Your task to perform on an android device: turn on priority inbox in the gmail app Image 0: 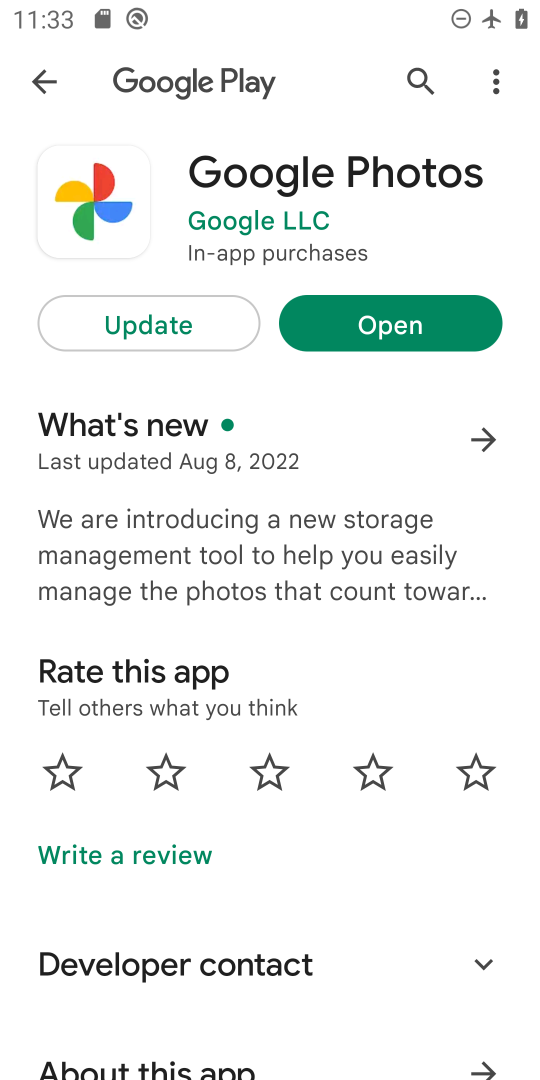
Step 0: press home button
Your task to perform on an android device: turn on priority inbox in the gmail app Image 1: 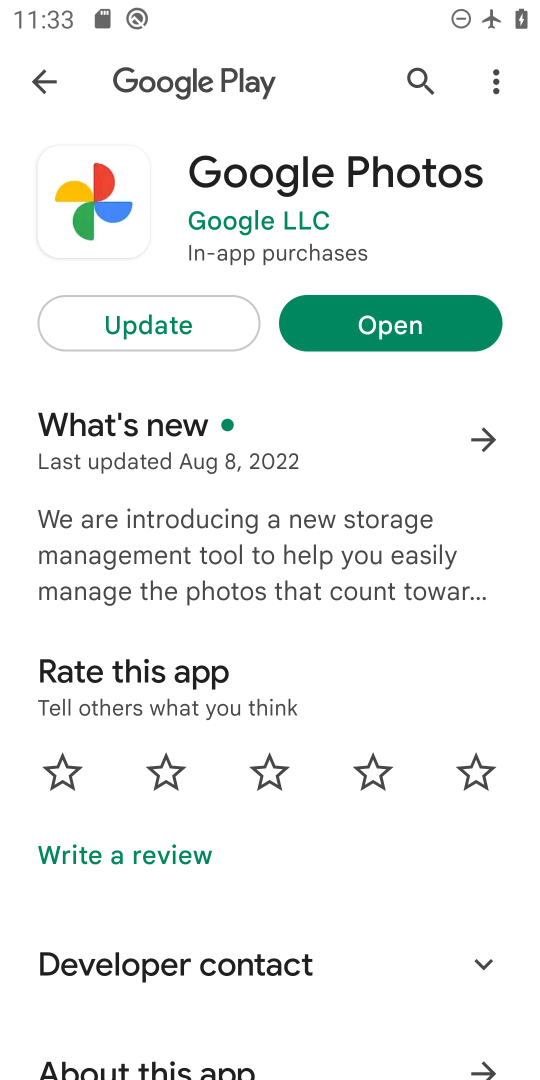
Step 1: press home button
Your task to perform on an android device: turn on priority inbox in the gmail app Image 2: 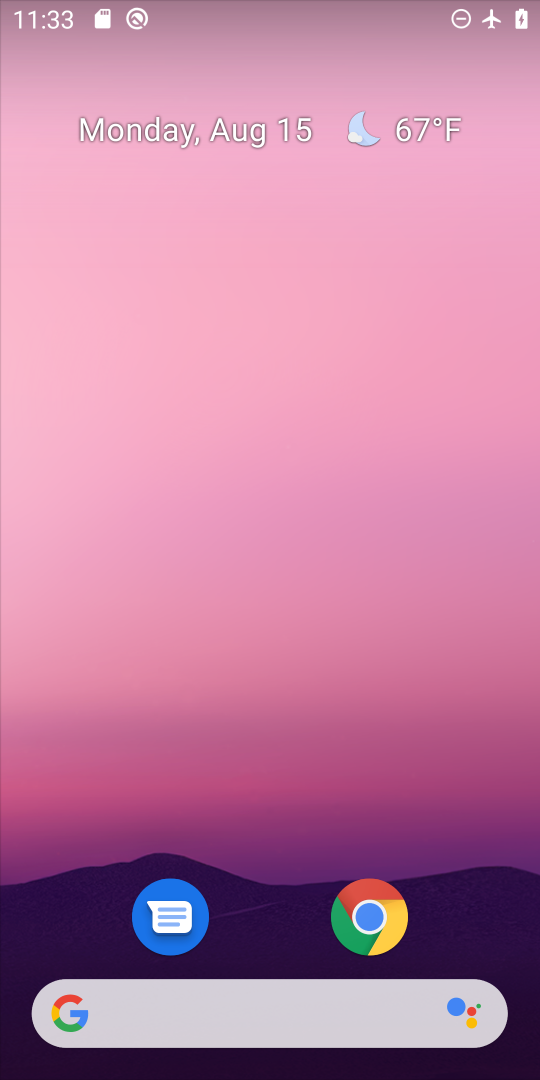
Step 2: drag from (283, 800) to (322, 0)
Your task to perform on an android device: turn on priority inbox in the gmail app Image 3: 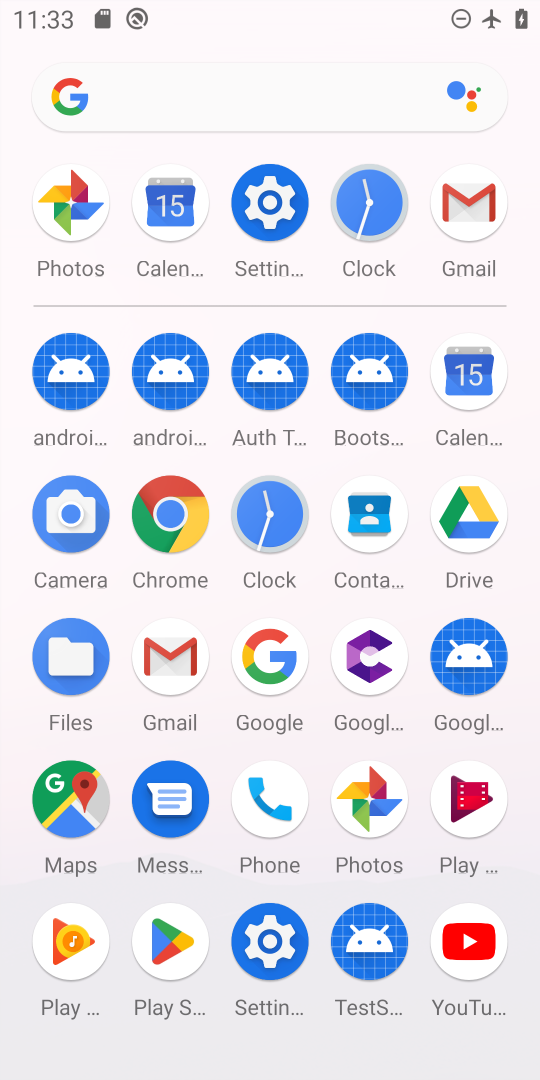
Step 3: click (475, 196)
Your task to perform on an android device: turn on priority inbox in the gmail app Image 4: 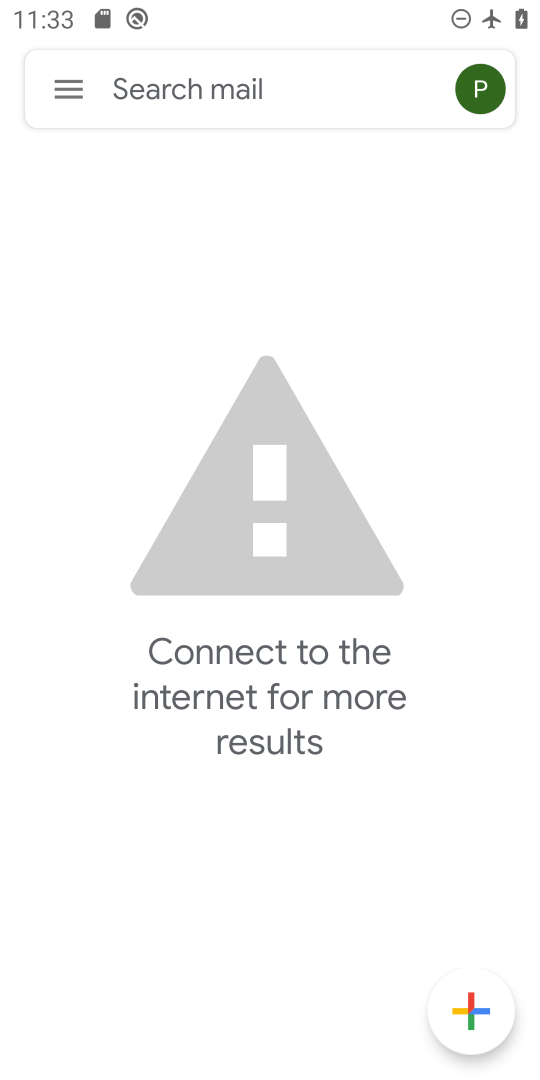
Step 4: click (77, 85)
Your task to perform on an android device: turn on priority inbox in the gmail app Image 5: 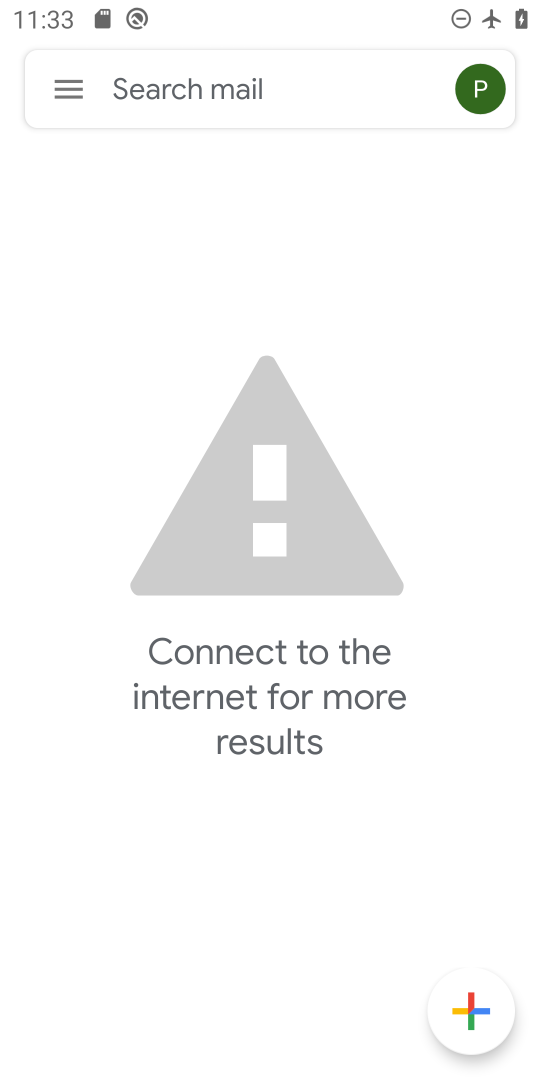
Step 5: click (77, 85)
Your task to perform on an android device: turn on priority inbox in the gmail app Image 6: 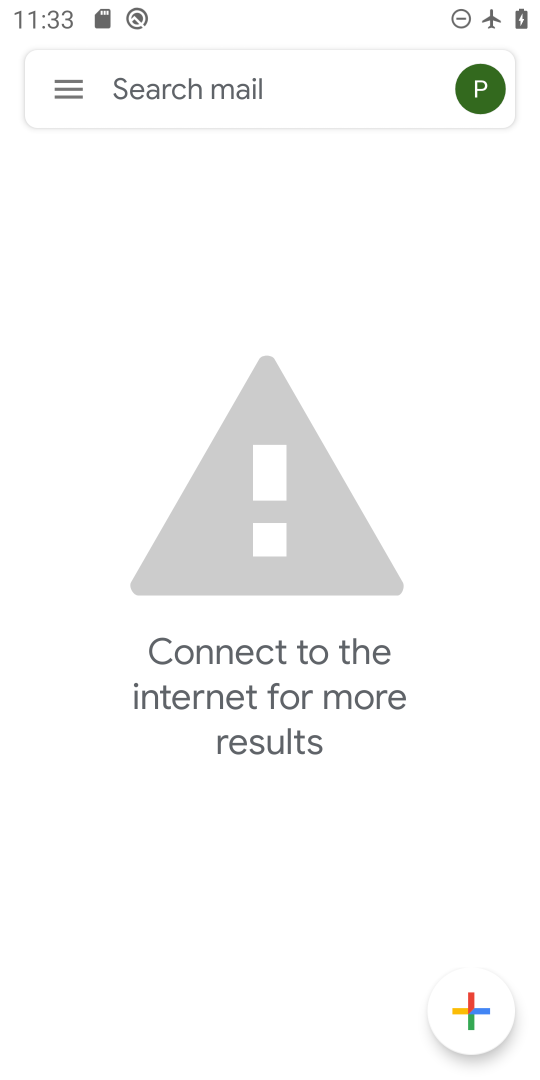
Step 6: click (72, 91)
Your task to perform on an android device: turn on priority inbox in the gmail app Image 7: 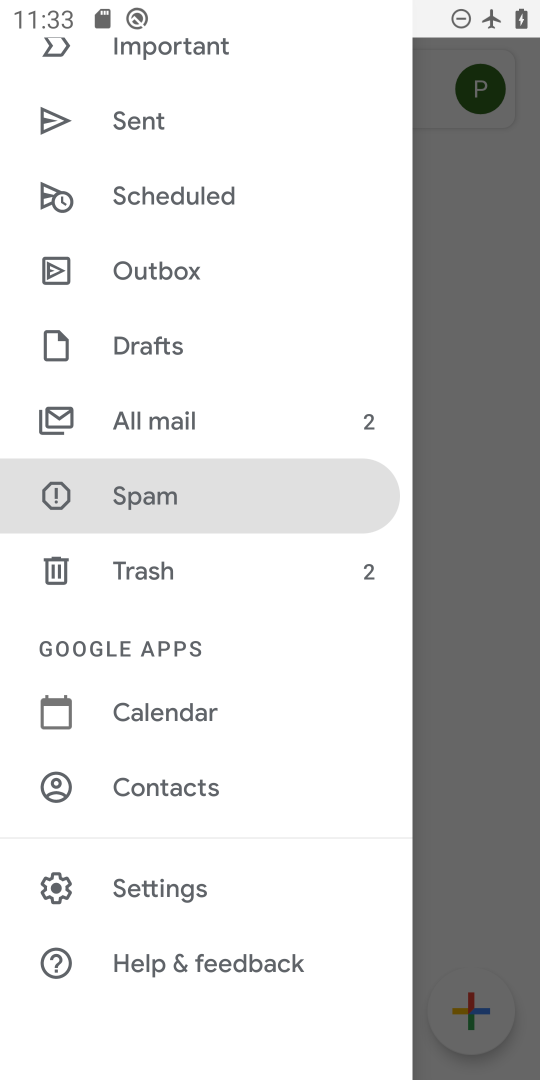
Step 7: click (171, 876)
Your task to perform on an android device: turn on priority inbox in the gmail app Image 8: 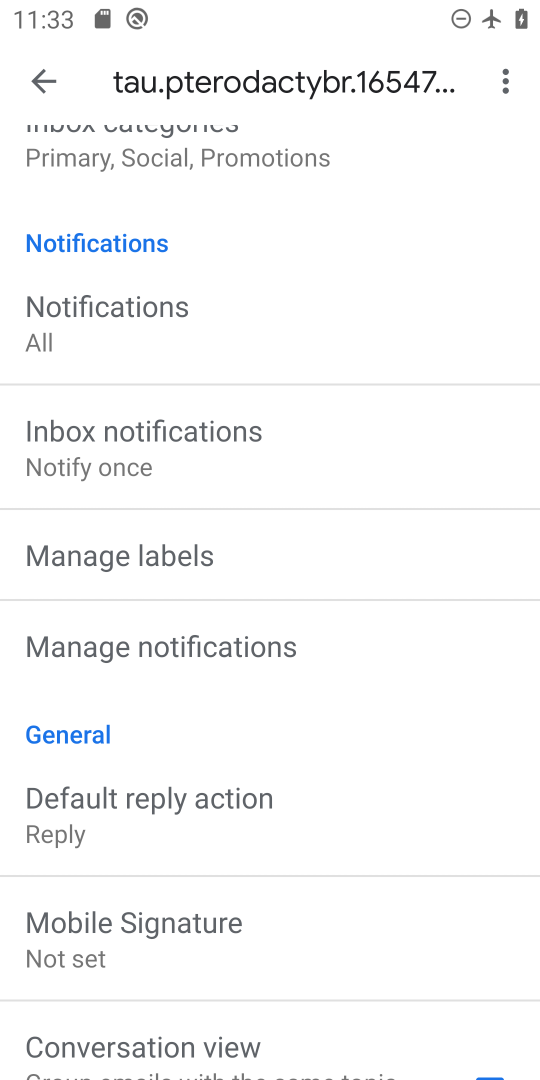
Step 8: drag from (256, 234) to (313, 838)
Your task to perform on an android device: turn on priority inbox in the gmail app Image 9: 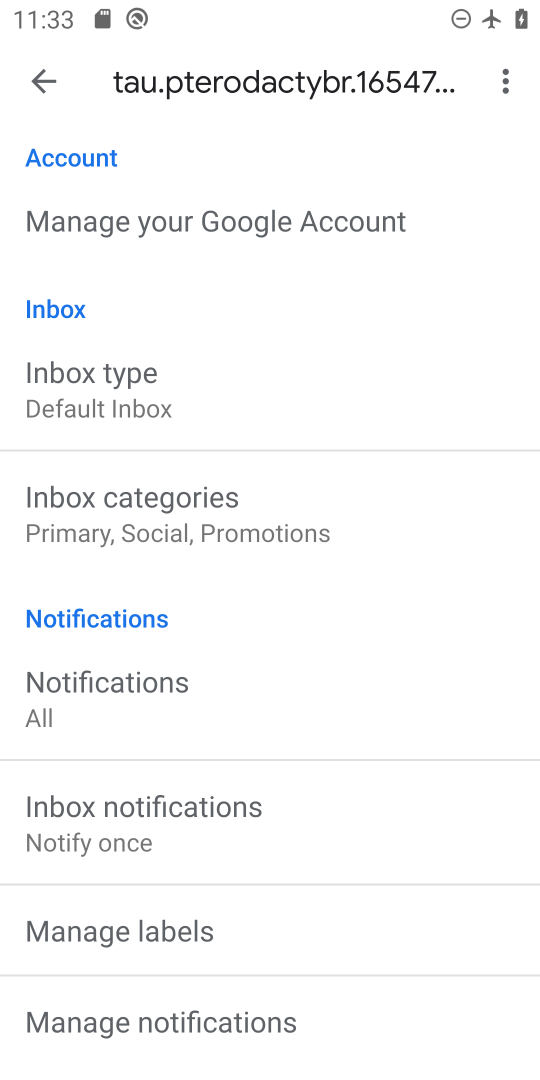
Step 9: click (109, 376)
Your task to perform on an android device: turn on priority inbox in the gmail app Image 10: 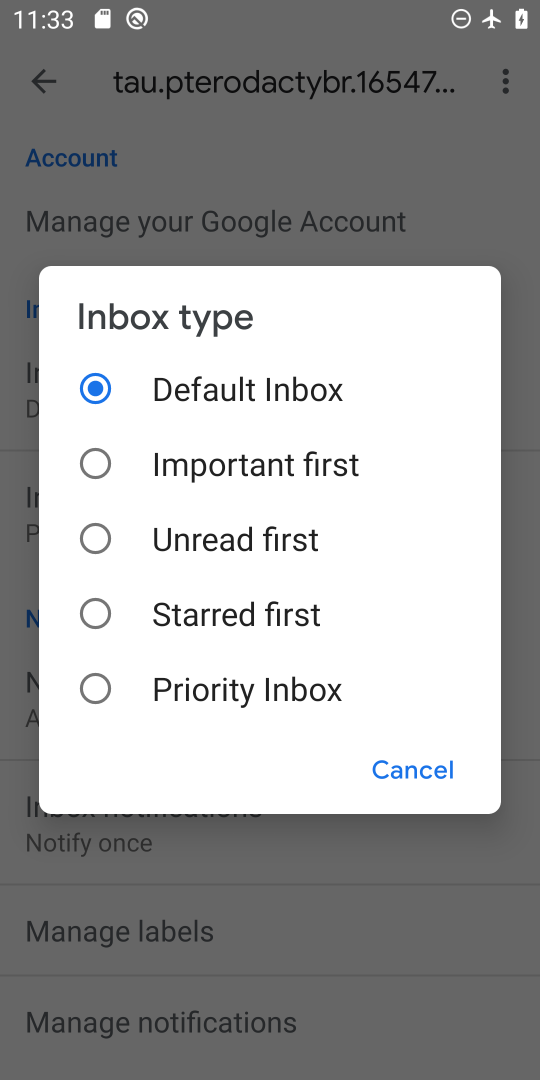
Step 10: click (96, 686)
Your task to perform on an android device: turn on priority inbox in the gmail app Image 11: 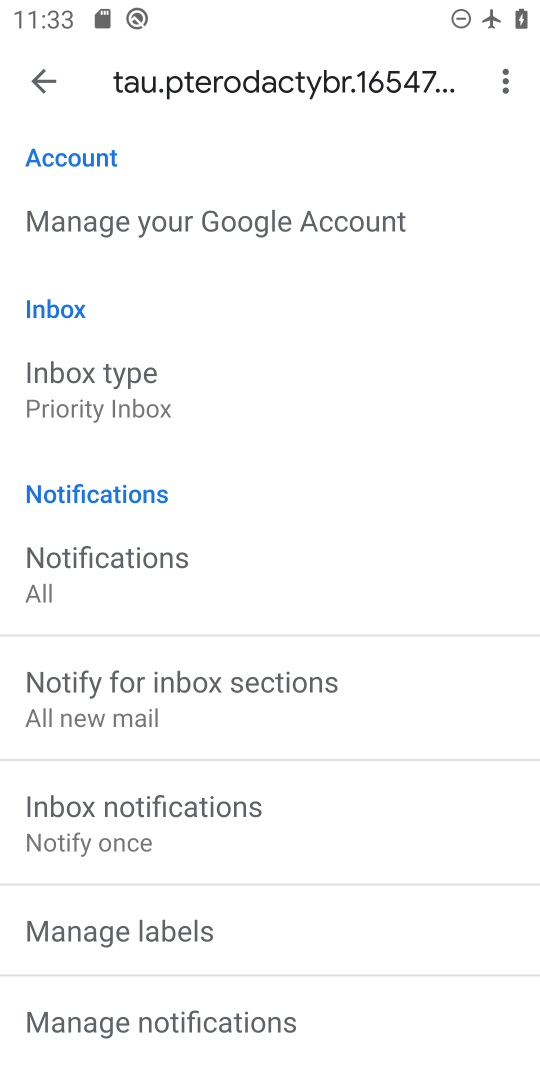
Step 11: task complete